Your task to perform on an android device: change notification settings in the gmail app Image 0: 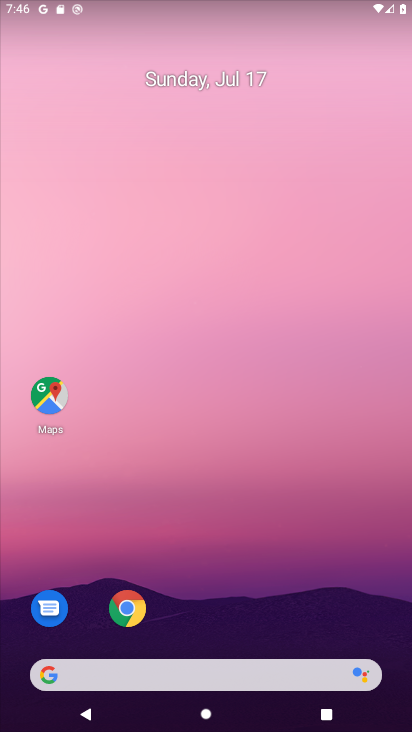
Step 0: drag from (224, 633) to (247, 309)
Your task to perform on an android device: change notification settings in the gmail app Image 1: 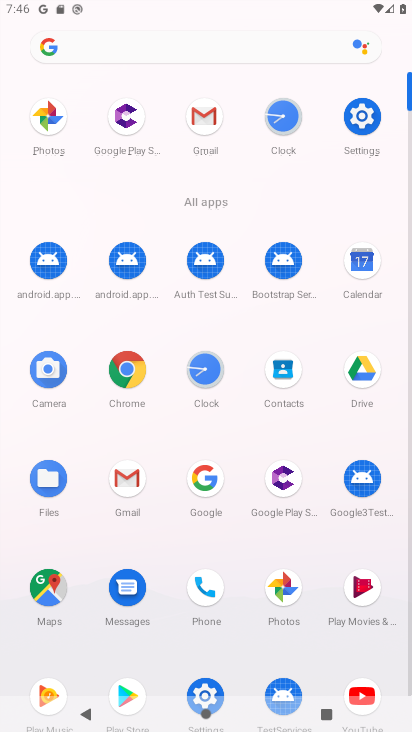
Step 1: click (128, 481)
Your task to perform on an android device: change notification settings in the gmail app Image 2: 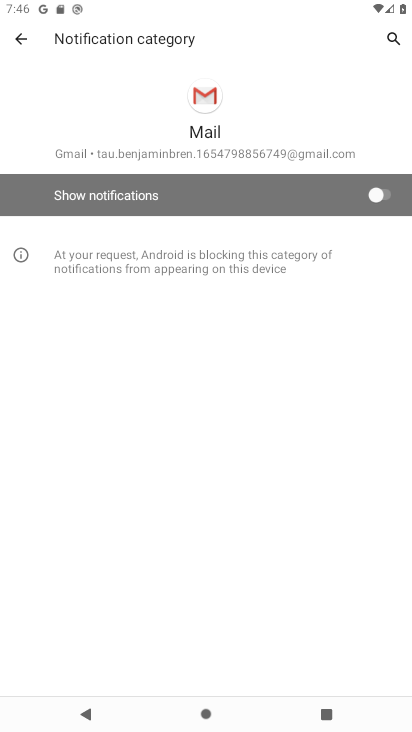
Step 2: click (378, 194)
Your task to perform on an android device: change notification settings in the gmail app Image 3: 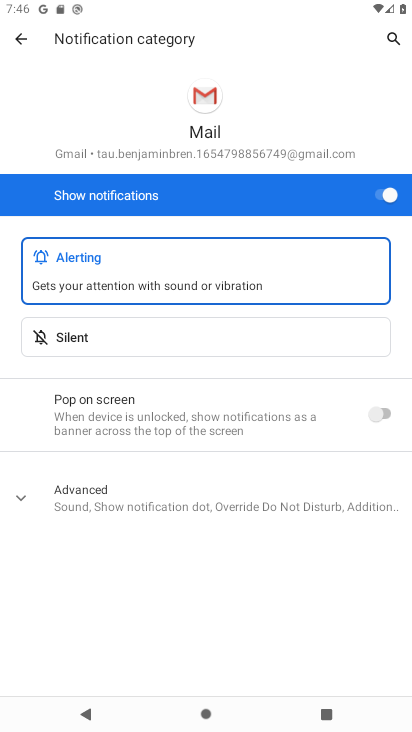
Step 3: task complete